Your task to perform on an android device: Open the phone app and click the voicemail tab. Image 0: 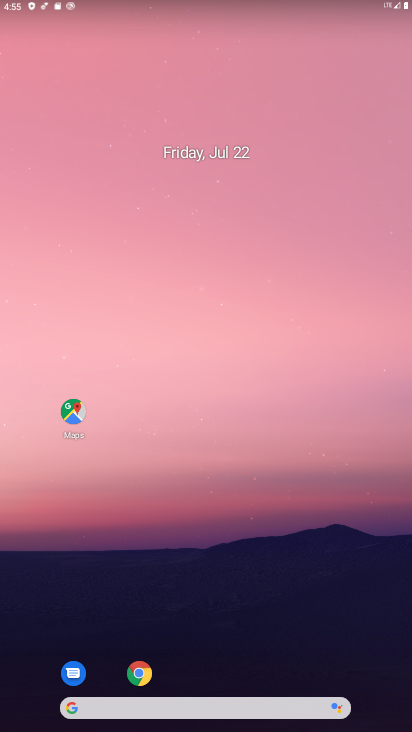
Step 0: press home button
Your task to perform on an android device: Open the phone app and click the voicemail tab. Image 1: 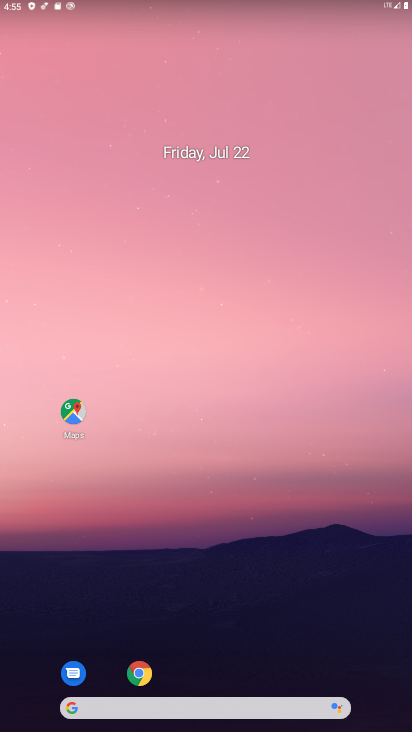
Step 1: drag from (253, 650) to (192, 186)
Your task to perform on an android device: Open the phone app and click the voicemail tab. Image 2: 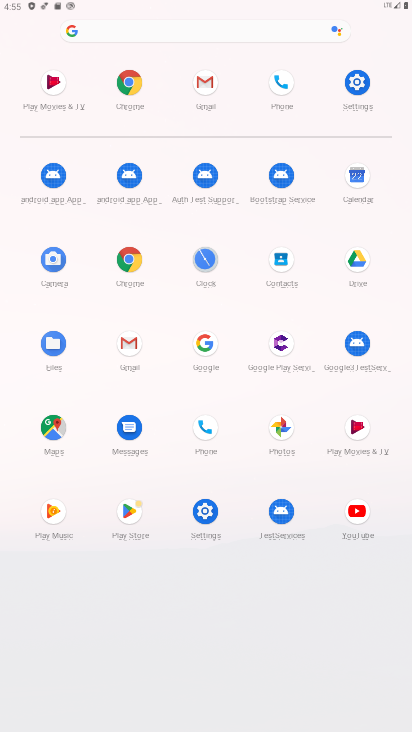
Step 2: click (205, 422)
Your task to perform on an android device: Open the phone app and click the voicemail tab. Image 3: 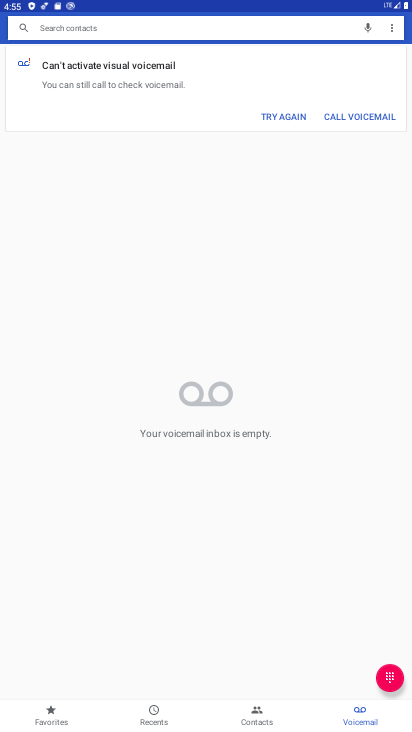
Step 3: click (366, 714)
Your task to perform on an android device: Open the phone app and click the voicemail tab. Image 4: 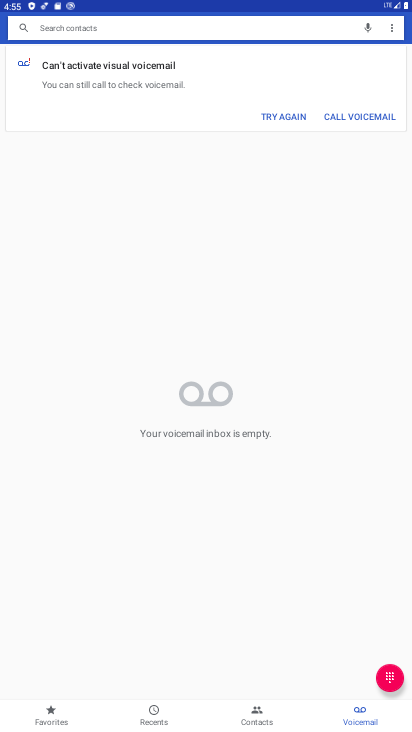
Step 4: task complete